Your task to perform on an android device: Do I have any events today? Image 0: 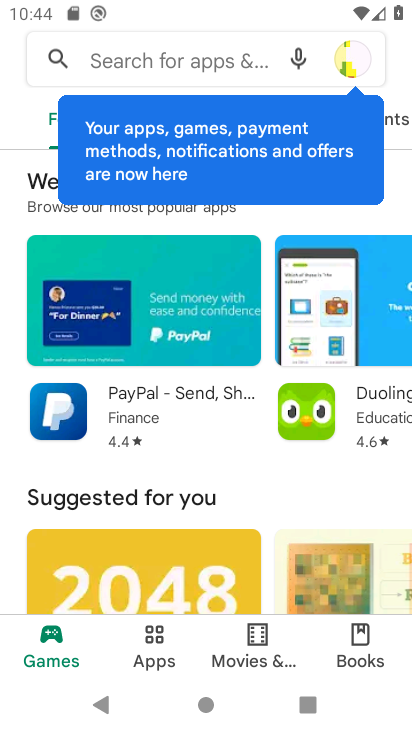
Step 0: press home button
Your task to perform on an android device: Do I have any events today? Image 1: 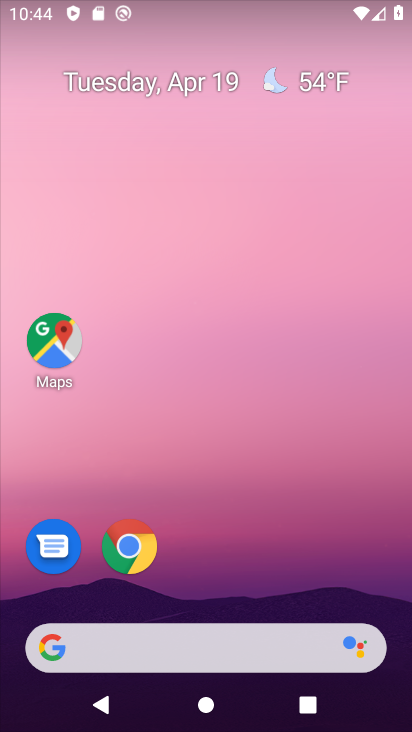
Step 1: drag from (240, 669) to (288, 16)
Your task to perform on an android device: Do I have any events today? Image 2: 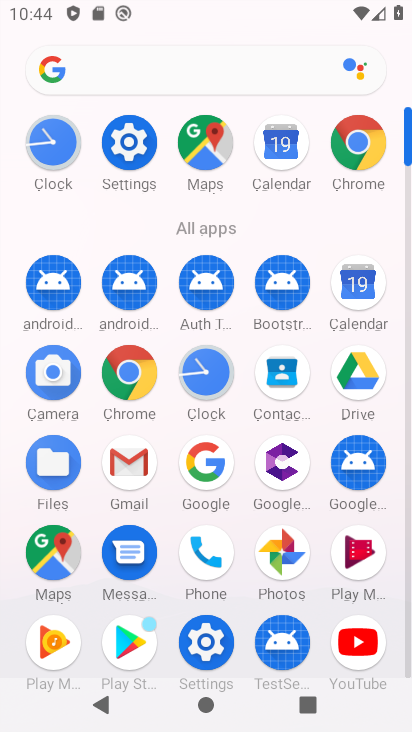
Step 2: click (362, 307)
Your task to perform on an android device: Do I have any events today? Image 3: 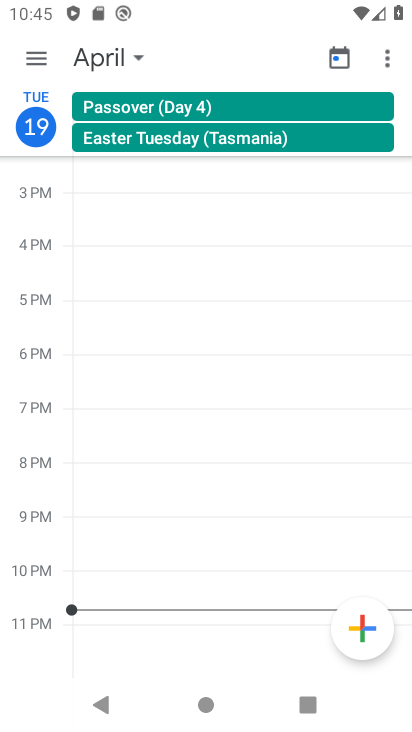
Step 3: task complete